Your task to perform on an android device: Clear the cart on costco.com. Add "bose soundlink" to the cart on costco.com, then select checkout. Image 0: 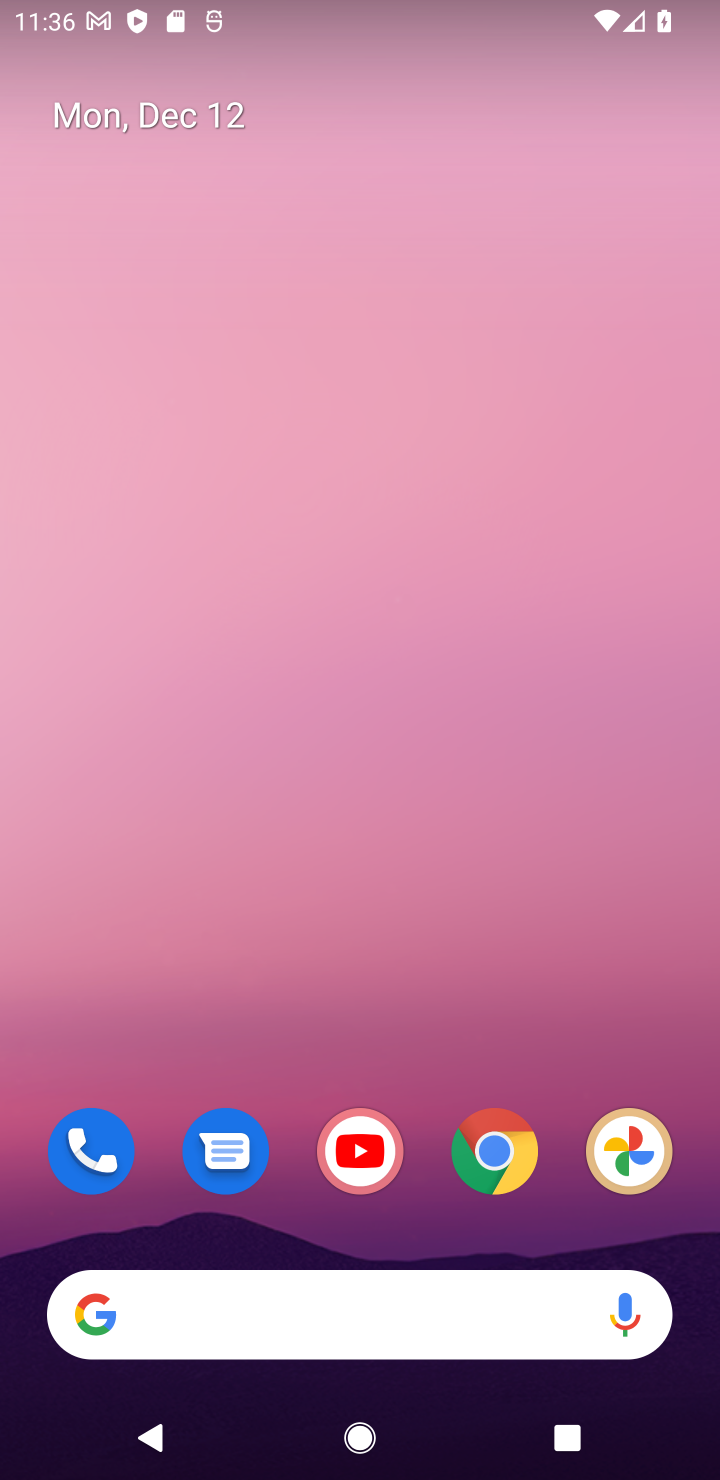
Step 0: drag from (303, 730) to (219, 397)
Your task to perform on an android device: Clear the cart on costco.com. Add "bose soundlink" to the cart on costco.com, then select checkout. Image 1: 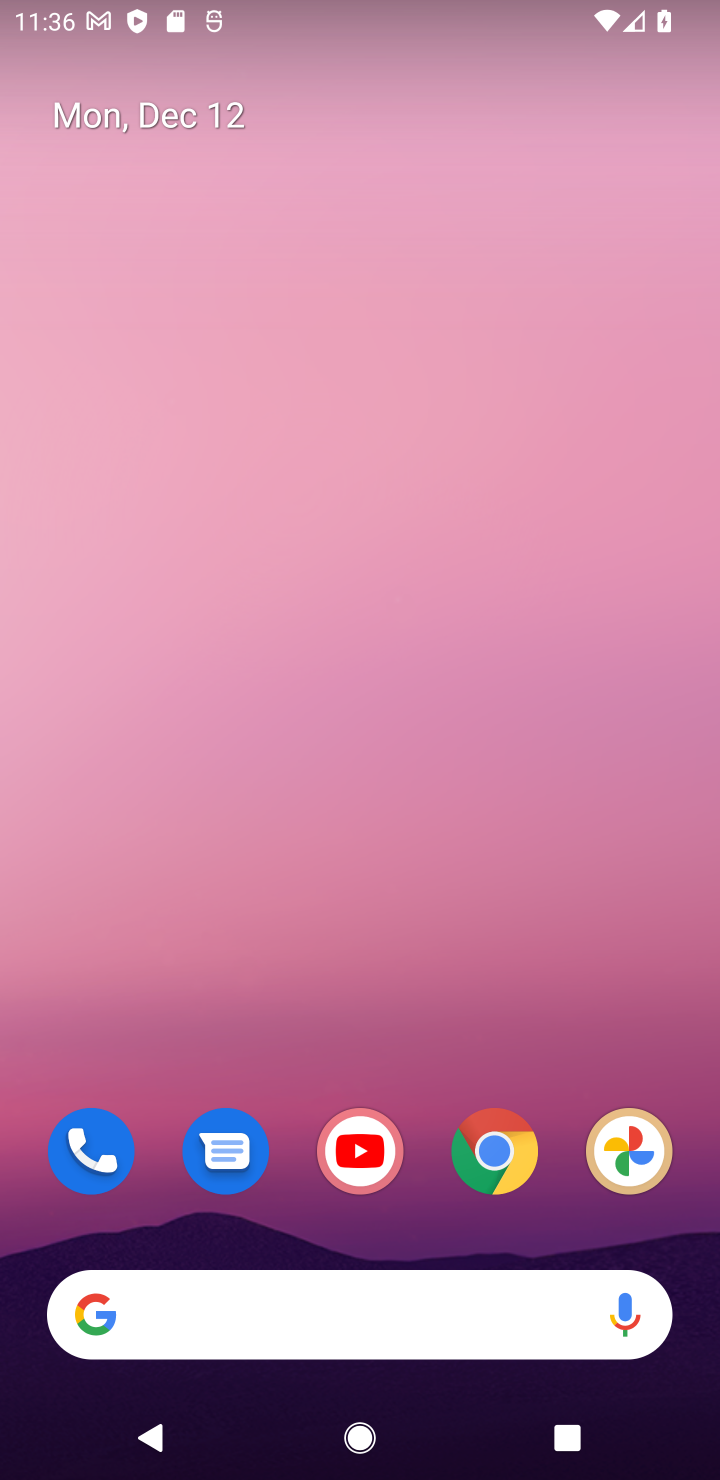
Step 1: drag from (320, 1285) to (294, 232)
Your task to perform on an android device: Clear the cart on costco.com. Add "bose soundlink" to the cart on costco.com, then select checkout. Image 2: 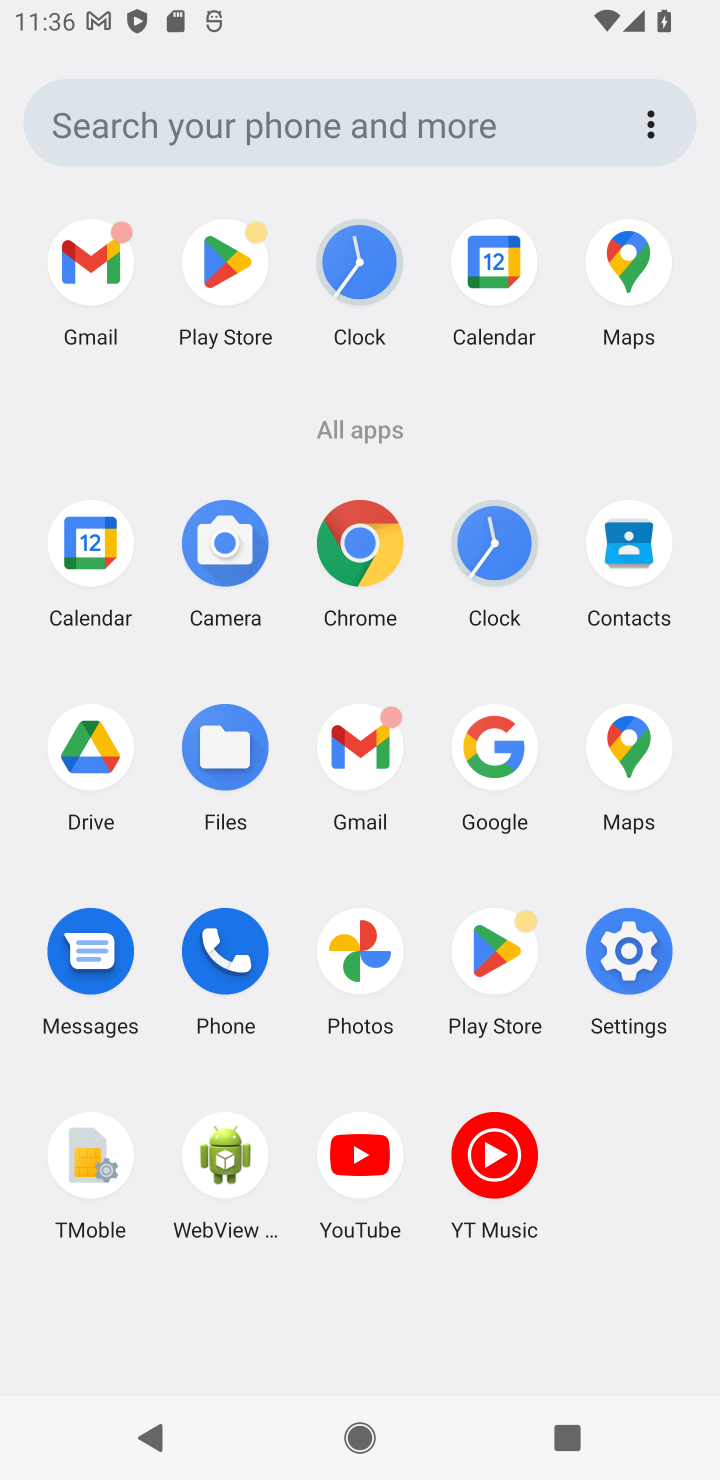
Step 2: click (497, 755)
Your task to perform on an android device: Clear the cart on costco.com. Add "bose soundlink" to the cart on costco.com, then select checkout. Image 3: 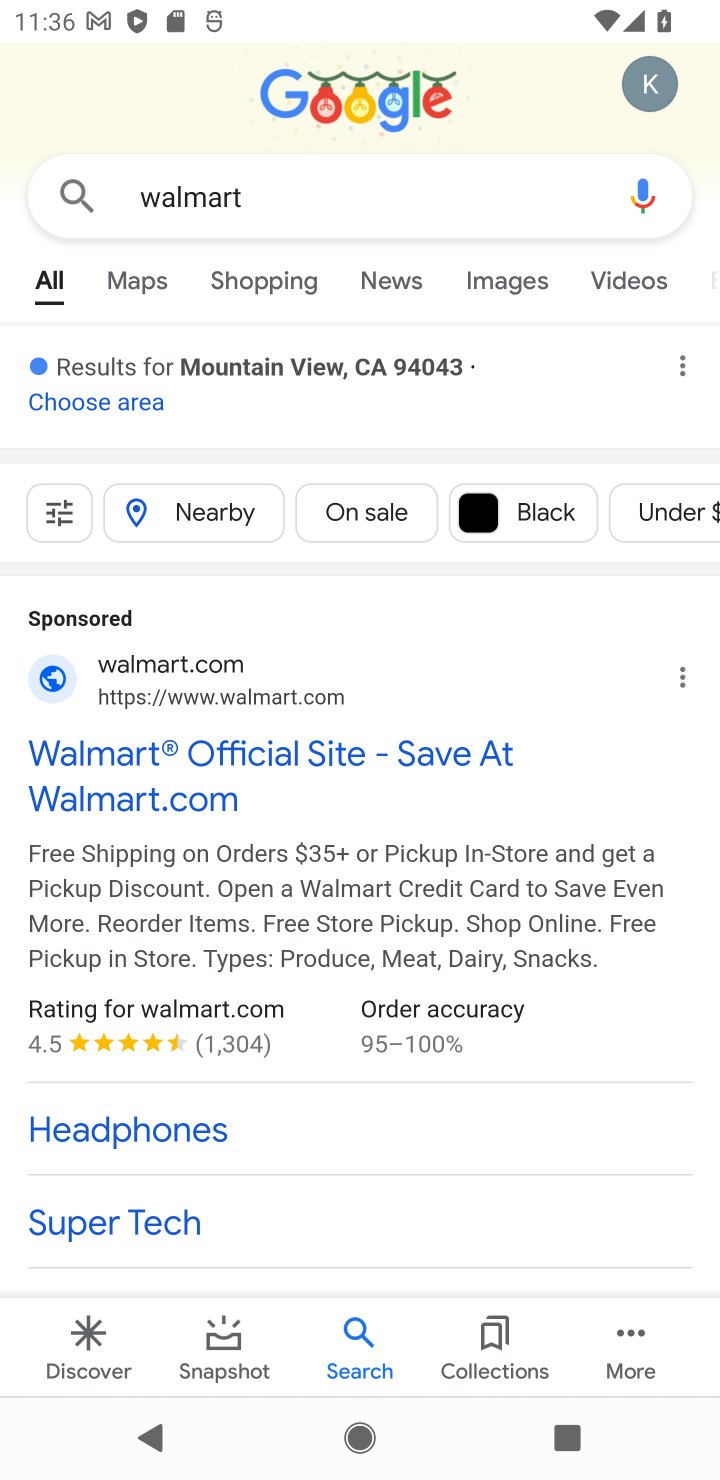
Step 3: click (183, 208)
Your task to perform on an android device: Clear the cart on costco.com. Add "bose soundlink" to the cart on costco.com, then select checkout. Image 4: 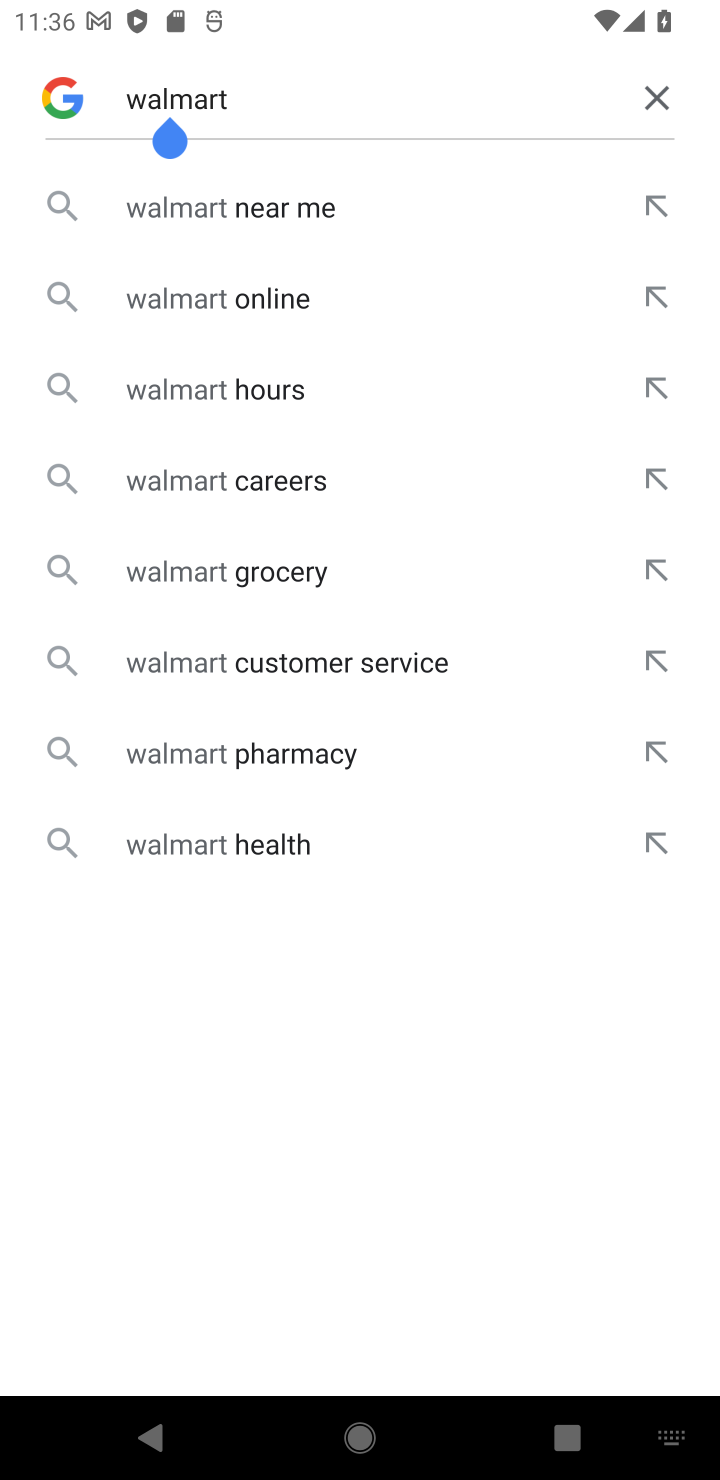
Step 4: click (660, 105)
Your task to perform on an android device: Clear the cart on costco.com. Add "bose soundlink" to the cart on costco.com, then select checkout. Image 5: 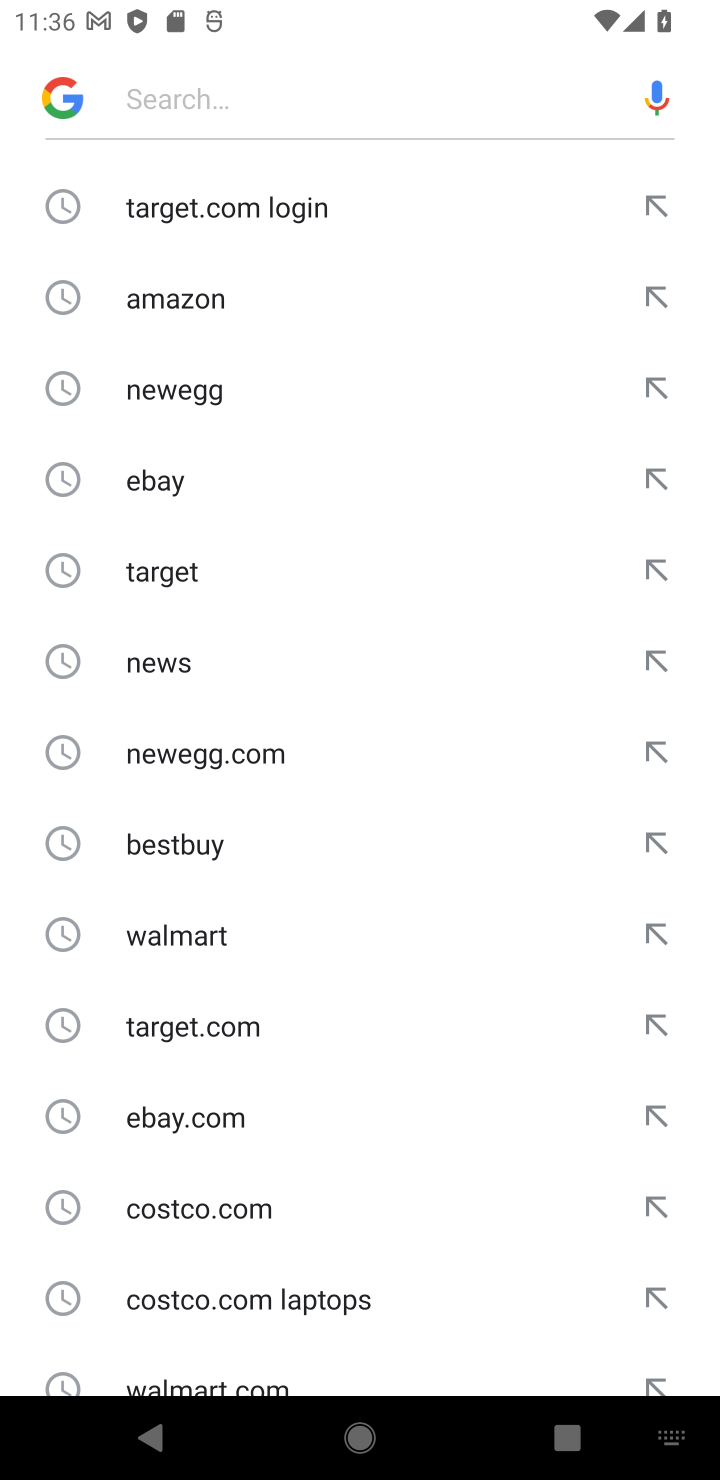
Step 5: click (192, 1206)
Your task to perform on an android device: Clear the cart on costco.com. Add "bose soundlink" to the cart on costco.com, then select checkout. Image 6: 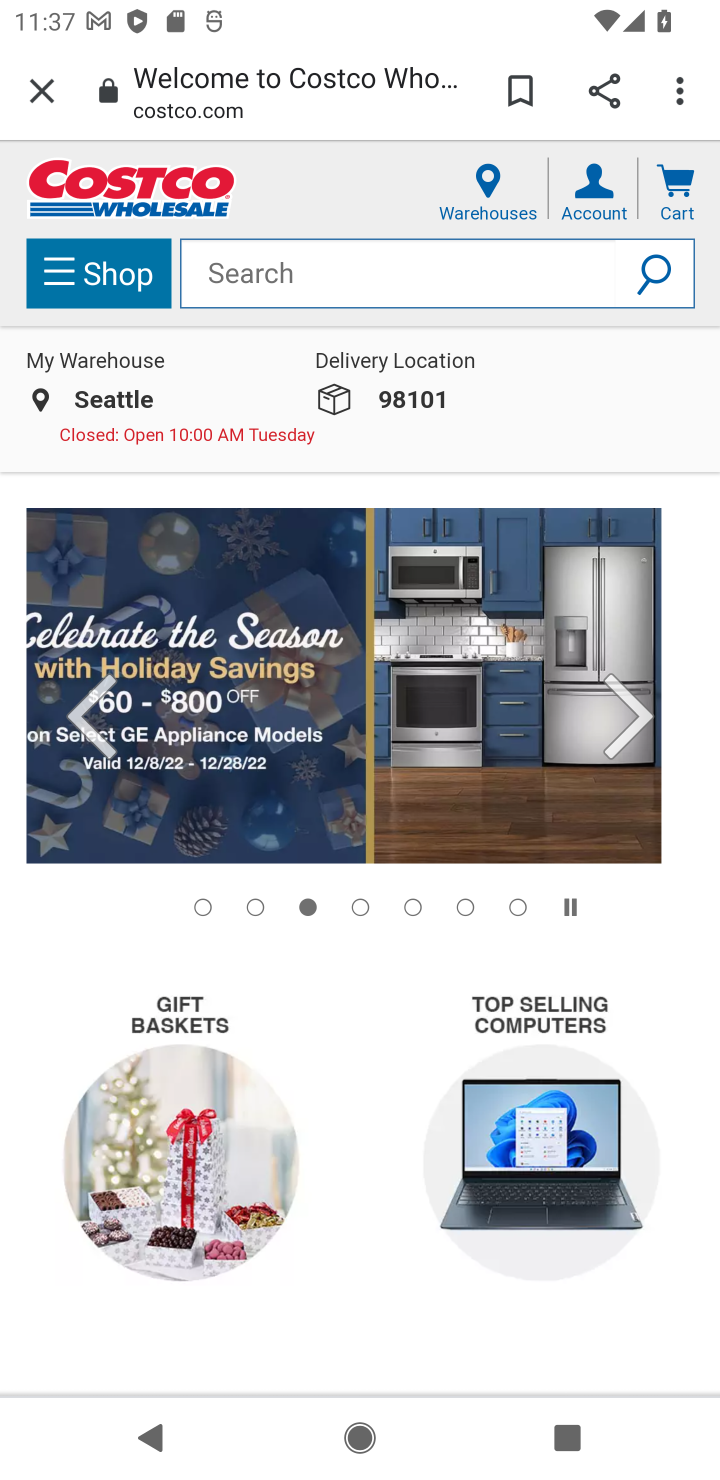
Step 6: click (246, 272)
Your task to perform on an android device: Clear the cart on costco.com. Add "bose soundlink" to the cart on costco.com, then select checkout. Image 7: 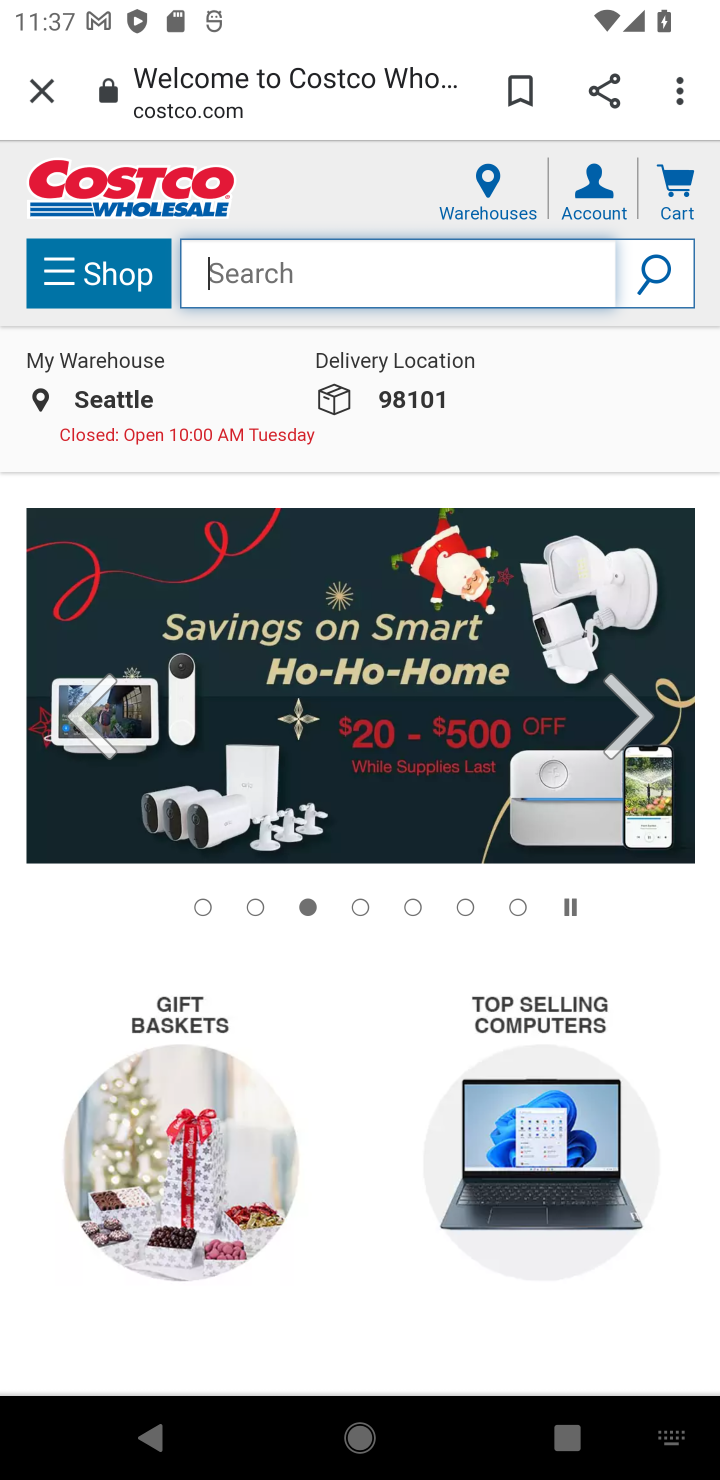
Step 7: type "bose soundlink"
Your task to perform on an android device: Clear the cart on costco.com. Add "bose soundlink" to the cart on costco.com, then select checkout. Image 8: 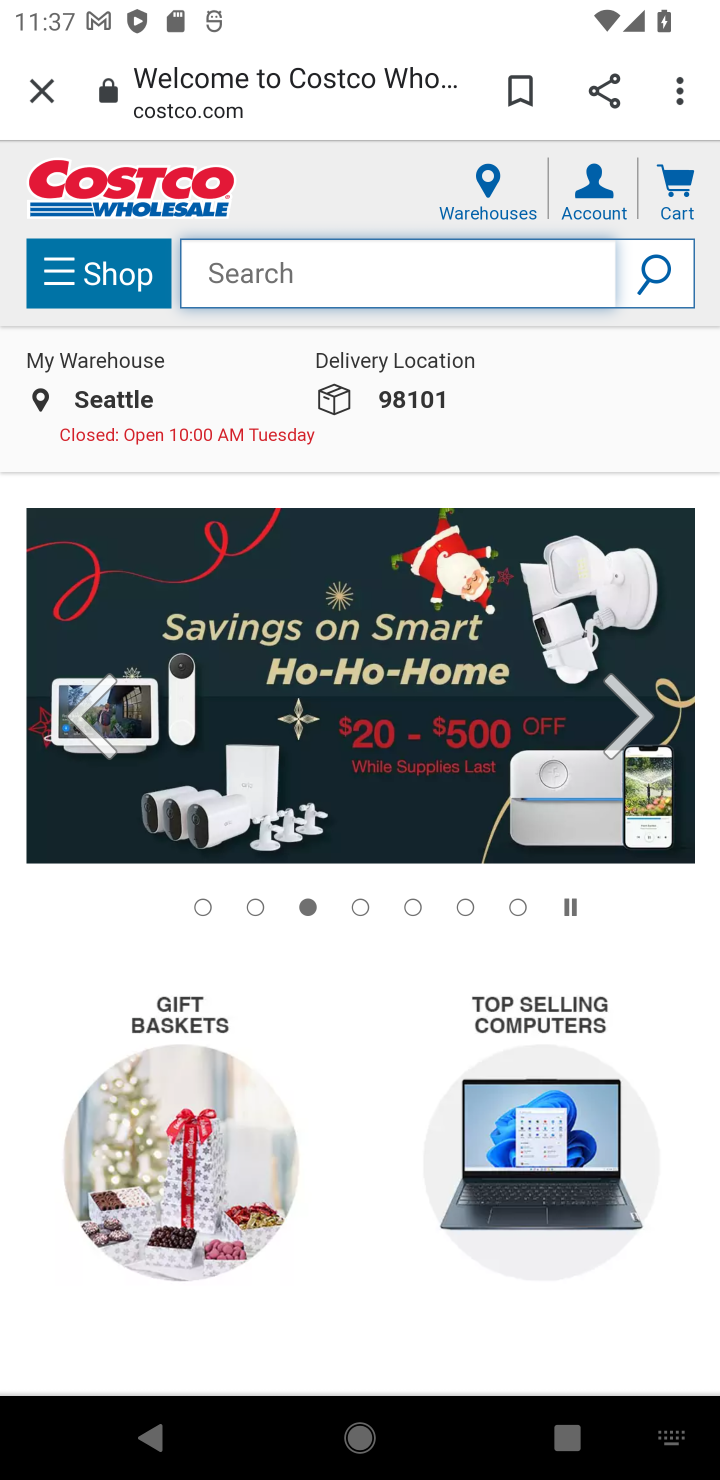
Step 8: click (653, 274)
Your task to perform on an android device: Clear the cart on costco.com. Add "bose soundlink" to the cart on costco.com, then select checkout. Image 9: 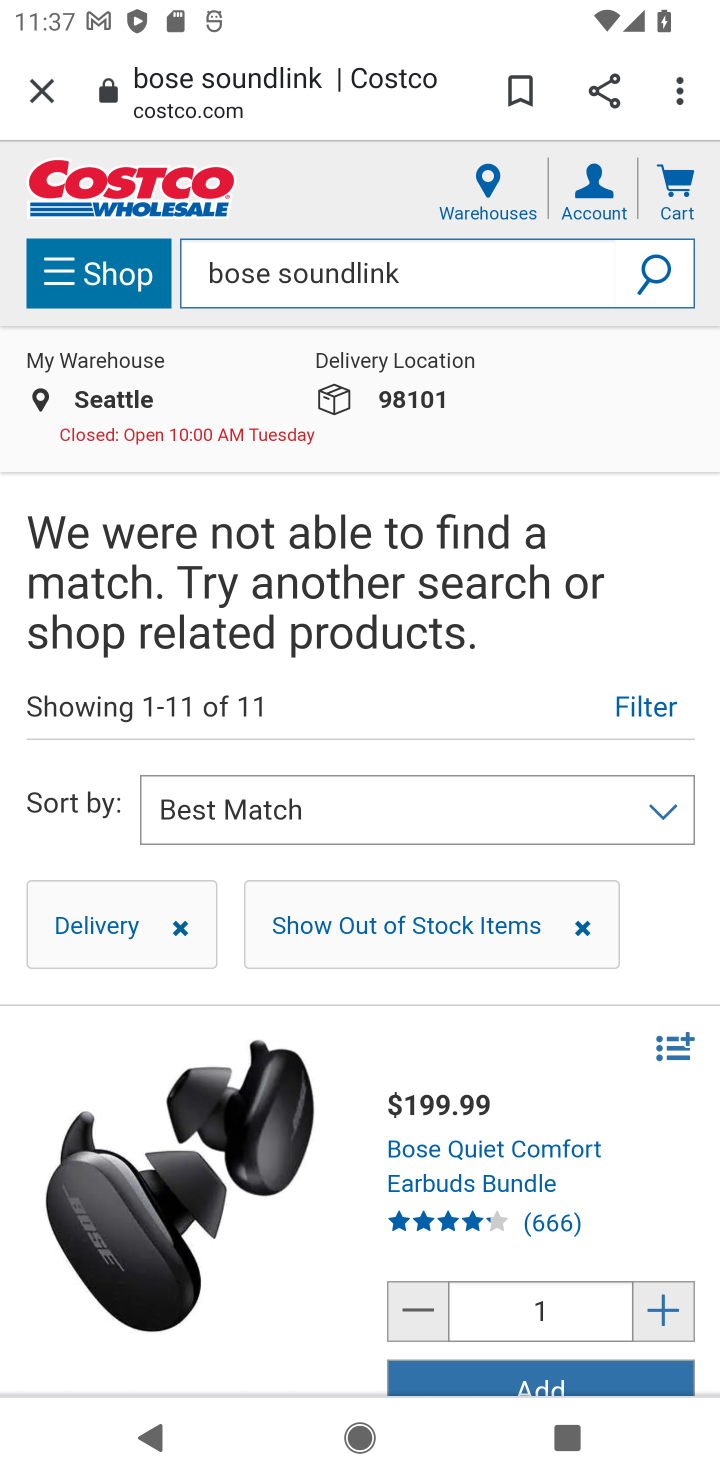
Step 9: drag from (293, 1236) to (298, 580)
Your task to perform on an android device: Clear the cart on costco.com. Add "bose soundlink" to the cart on costco.com, then select checkout. Image 10: 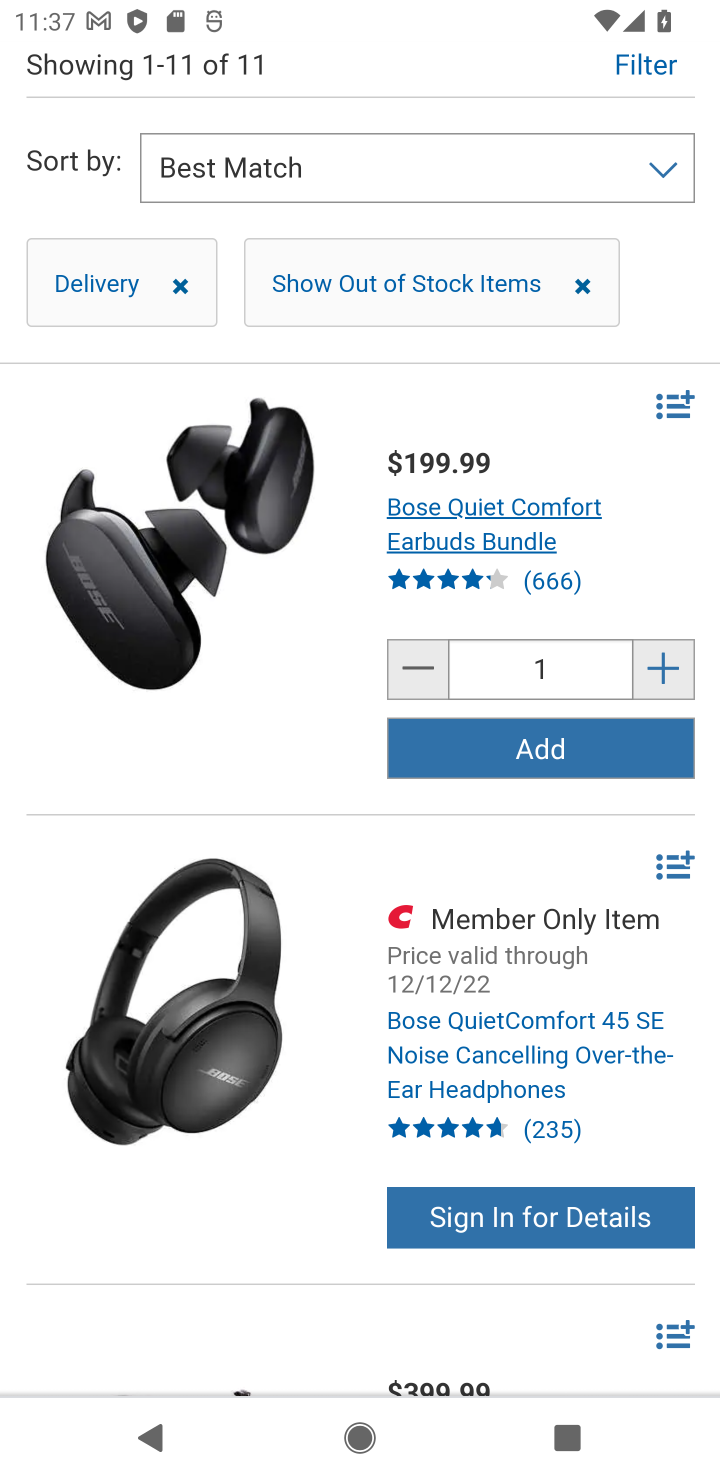
Step 10: click (619, 743)
Your task to perform on an android device: Clear the cart on costco.com. Add "bose soundlink" to the cart on costco.com, then select checkout. Image 11: 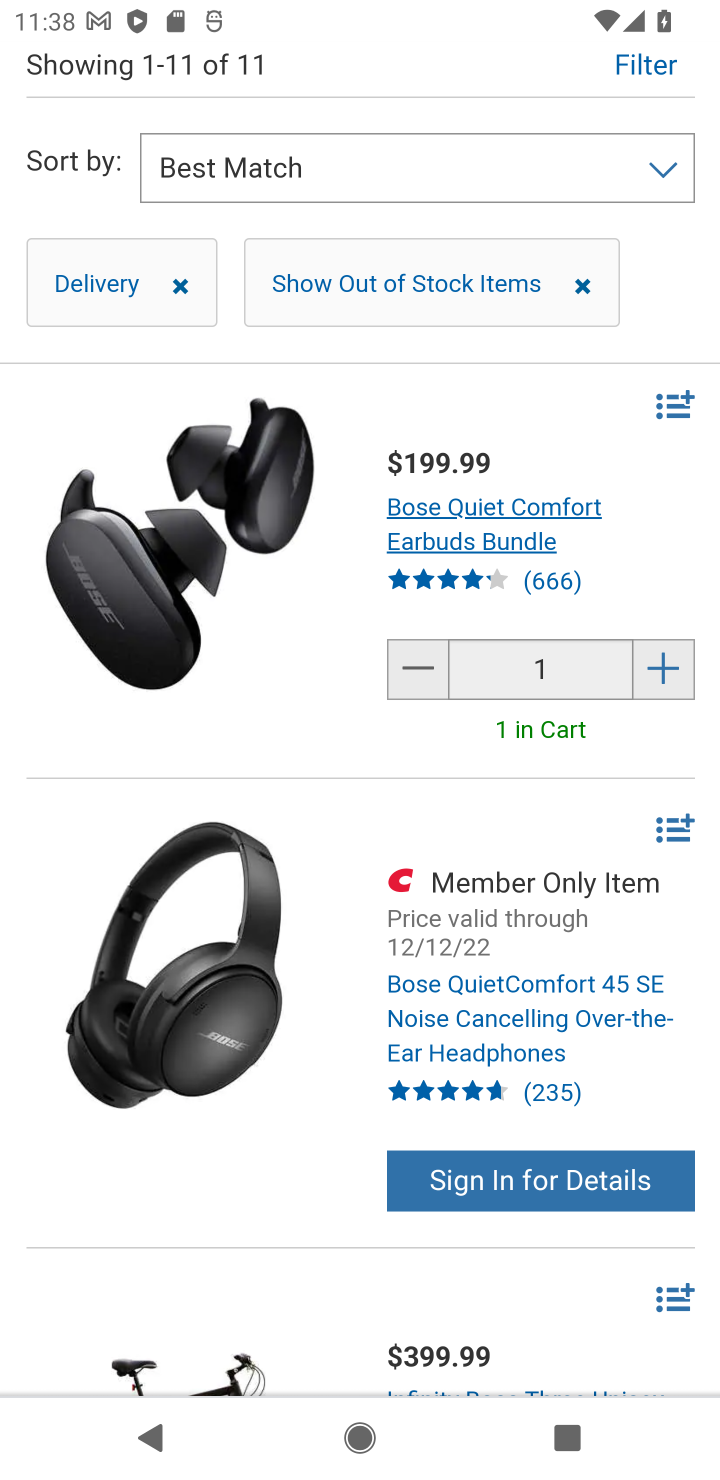
Step 11: drag from (470, 295) to (550, 1171)
Your task to perform on an android device: Clear the cart on costco.com. Add "bose soundlink" to the cart on costco.com, then select checkout. Image 12: 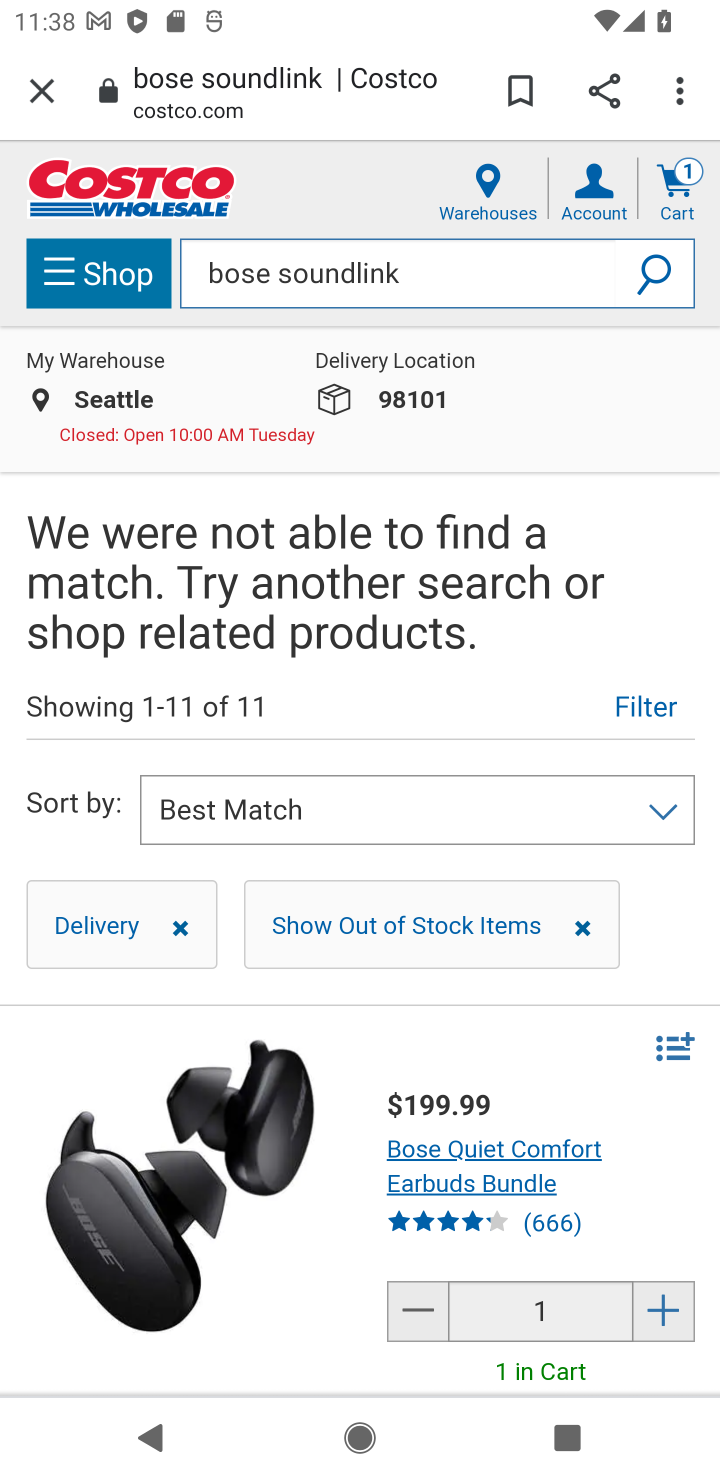
Step 12: click (673, 170)
Your task to perform on an android device: Clear the cart on costco.com. Add "bose soundlink" to the cart on costco.com, then select checkout. Image 13: 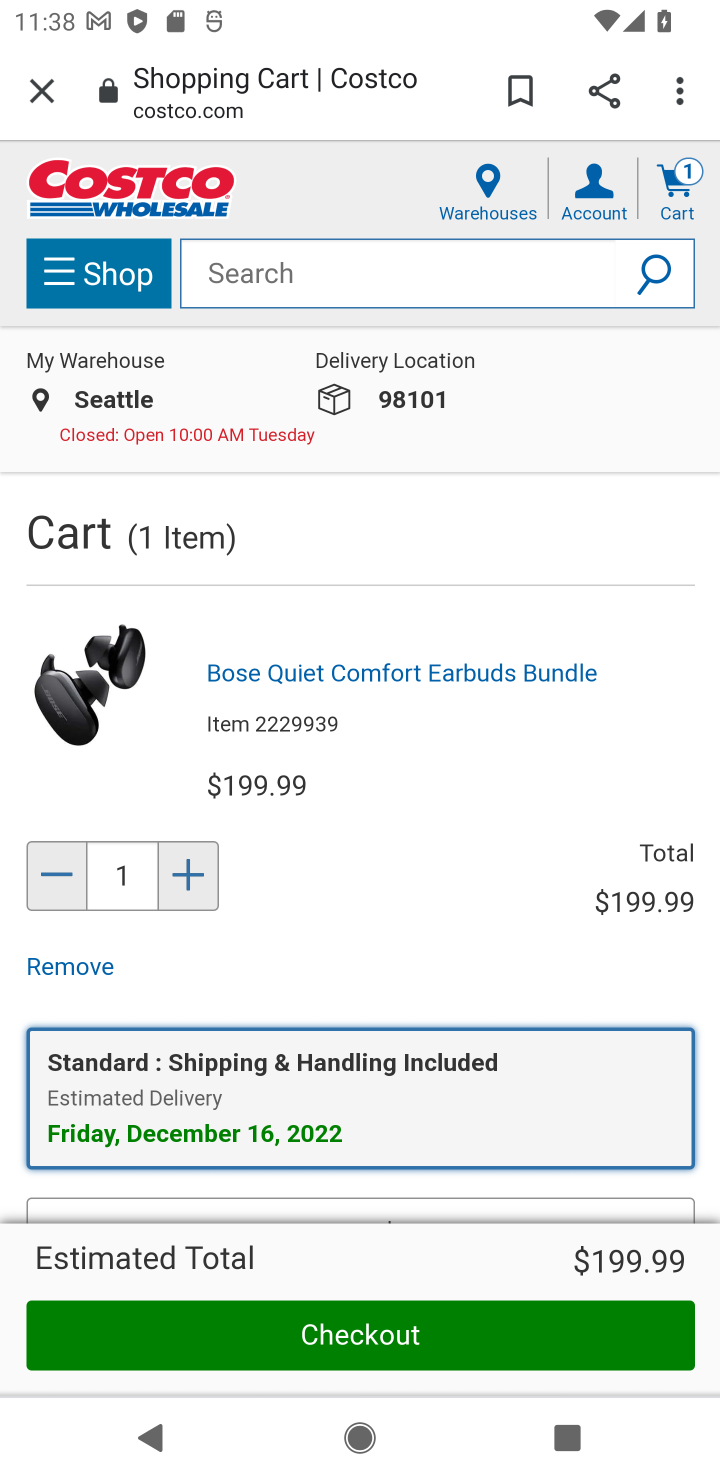
Step 13: click (413, 1337)
Your task to perform on an android device: Clear the cart on costco.com. Add "bose soundlink" to the cart on costco.com, then select checkout. Image 14: 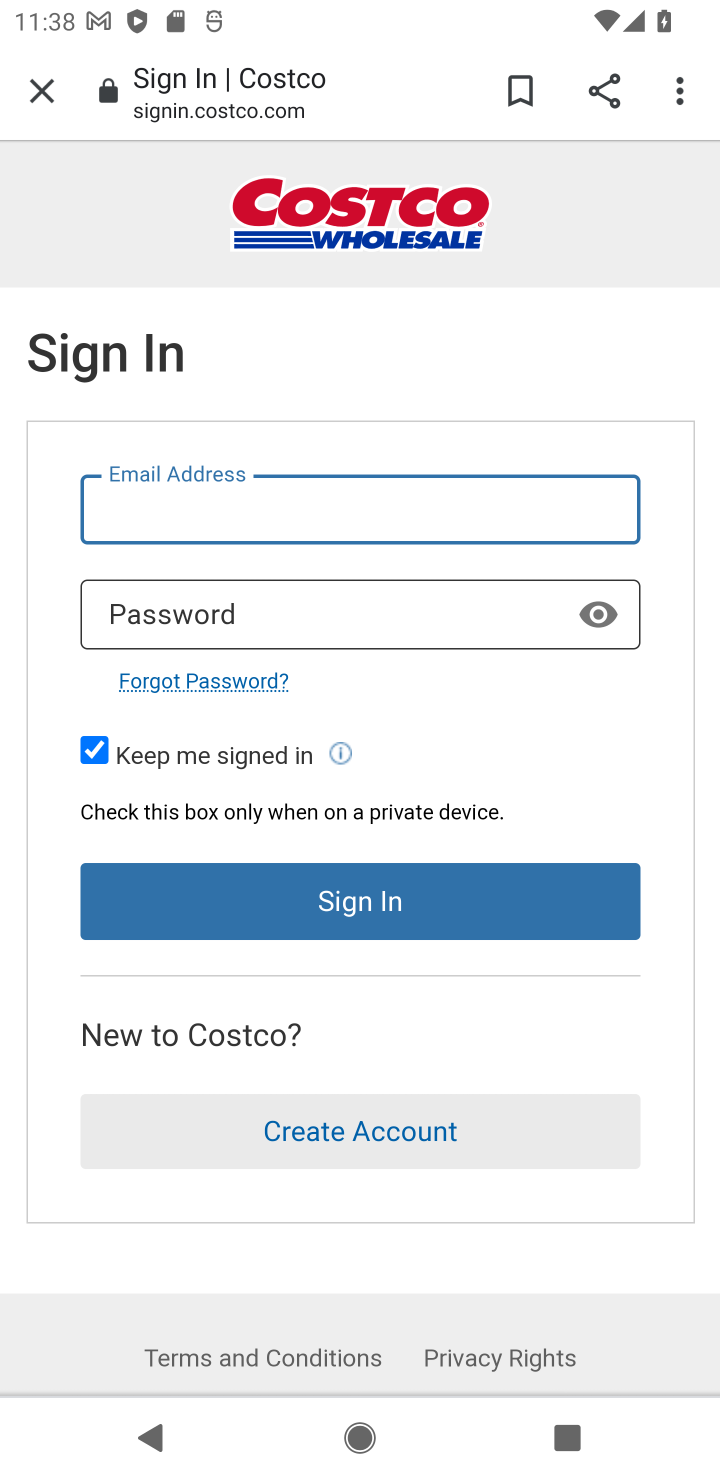
Step 14: task complete